Your task to perform on an android device: Empty the shopping cart on bestbuy.com. Image 0: 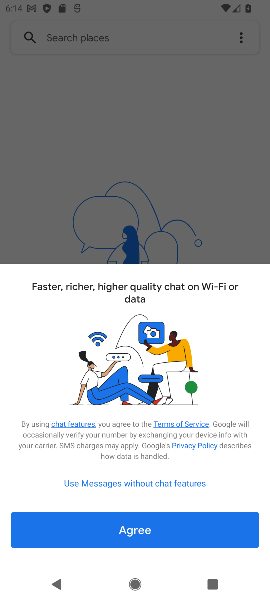
Step 0: press home button
Your task to perform on an android device: Empty the shopping cart on bestbuy.com. Image 1: 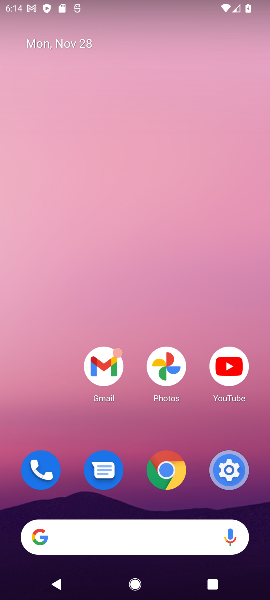
Step 1: click (159, 463)
Your task to perform on an android device: Empty the shopping cart on bestbuy.com. Image 2: 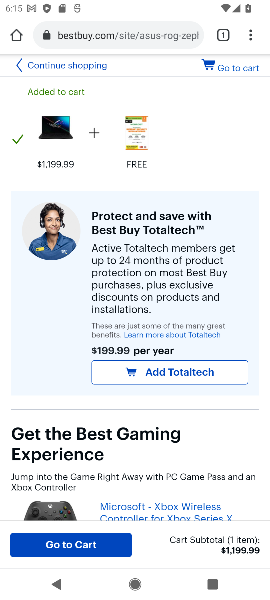
Step 2: click (218, 66)
Your task to perform on an android device: Empty the shopping cart on bestbuy.com. Image 3: 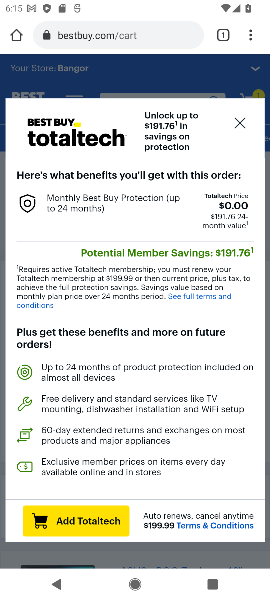
Step 3: click (241, 122)
Your task to perform on an android device: Empty the shopping cart on bestbuy.com. Image 4: 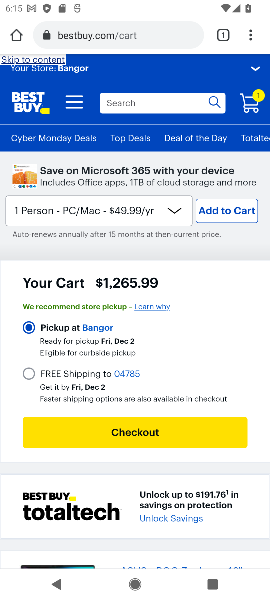
Step 4: drag from (156, 451) to (185, 209)
Your task to perform on an android device: Empty the shopping cart on bestbuy.com. Image 5: 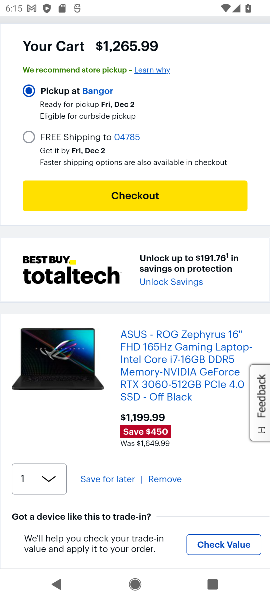
Step 5: click (151, 474)
Your task to perform on an android device: Empty the shopping cart on bestbuy.com. Image 6: 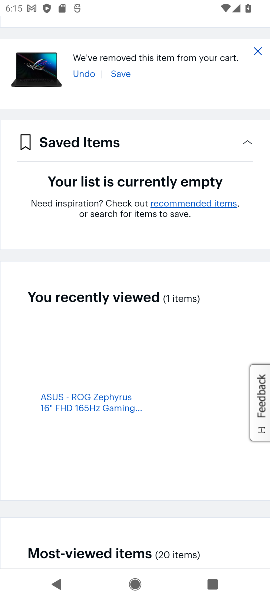
Step 6: task complete